Your task to perform on an android device: Go to eBay Image 0: 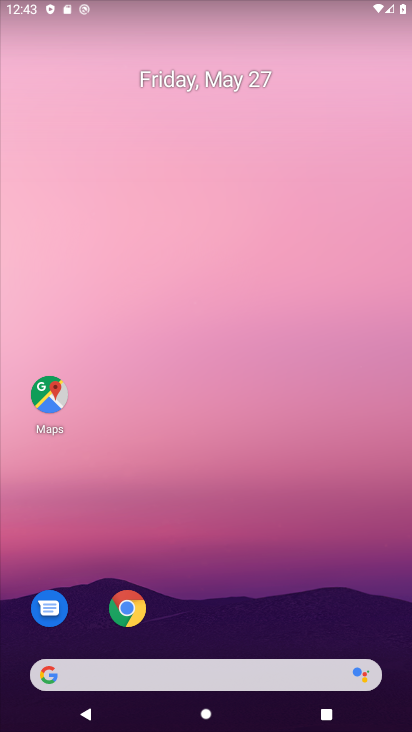
Step 0: click (143, 623)
Your task to perform on an android device: Go to eBay Image 1: 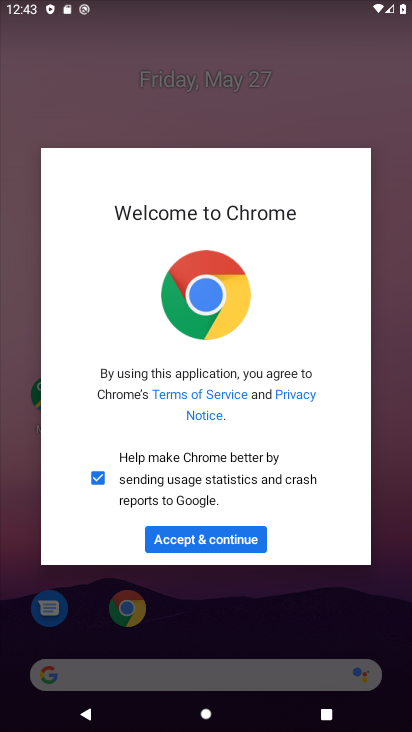
Step 1: click (238, 545)
Your task to perform on an android device: Go to eBay Image 2: 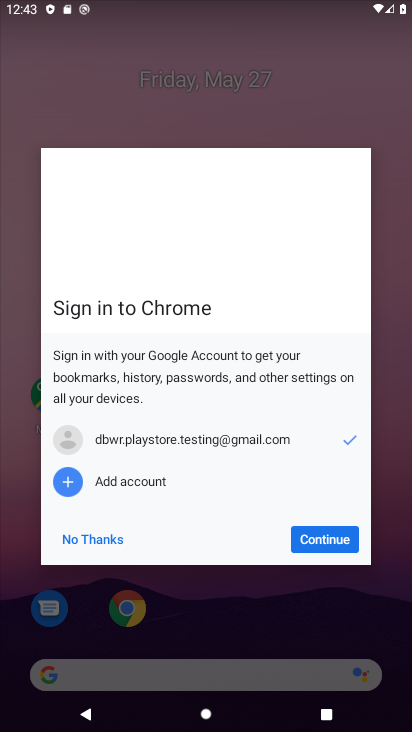
Step 2: click (304, 542)
Your task to perform on an android device: Go to eBay Image 3: 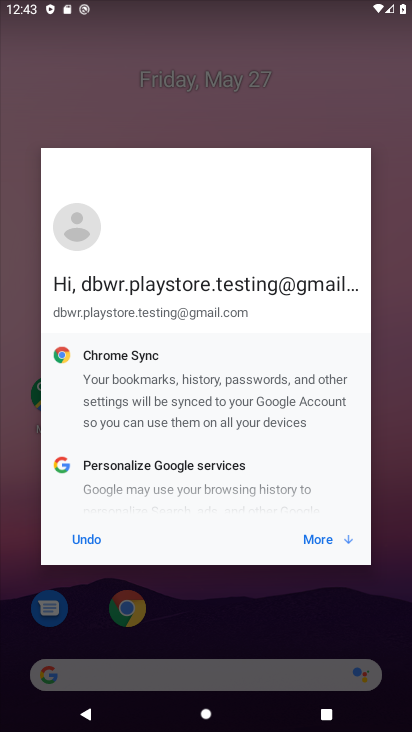
Step 3: click (345, 537)
Your task to perform on an android device: Go to eBay Image 4: 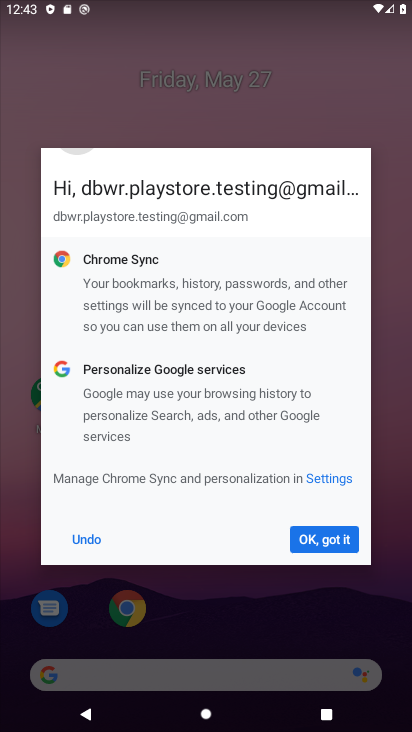
Step 4: click (332, 542)
Your task to perform on an android device: Go to eBay Image 5: 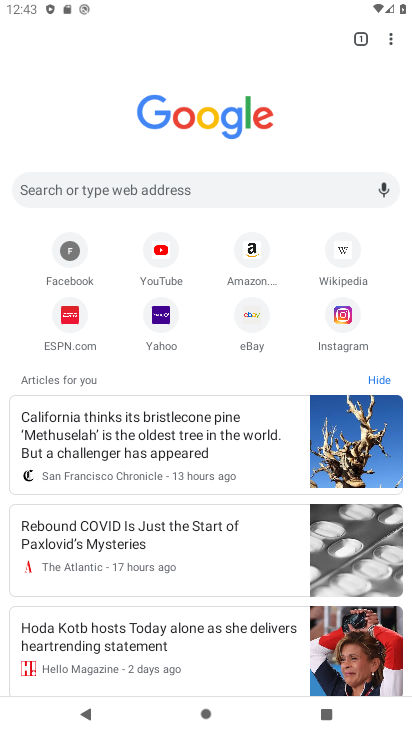
Step 5: click (255, 311)
Your task to perform on an android device: Go to eBay Image 6: 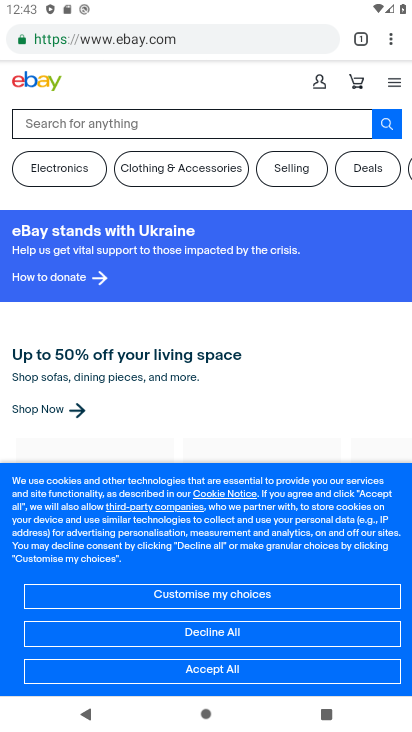
Step 6: click (226, 679)
Your task to perform on an android device: Go to eBay Image 7: 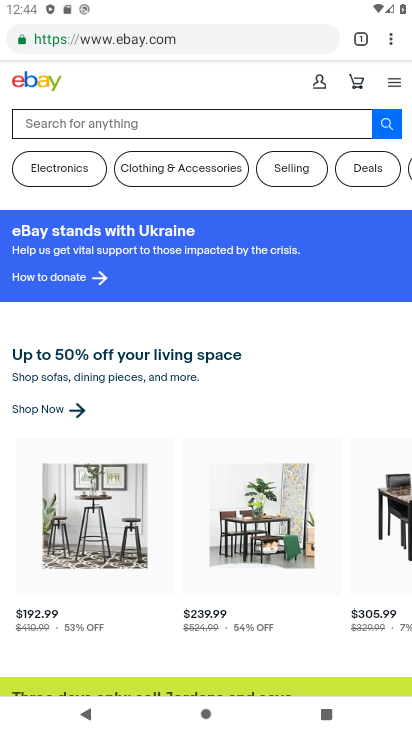
Step 7: task complete